Your task to perform on an android device: Do I have any events today? Image 0: 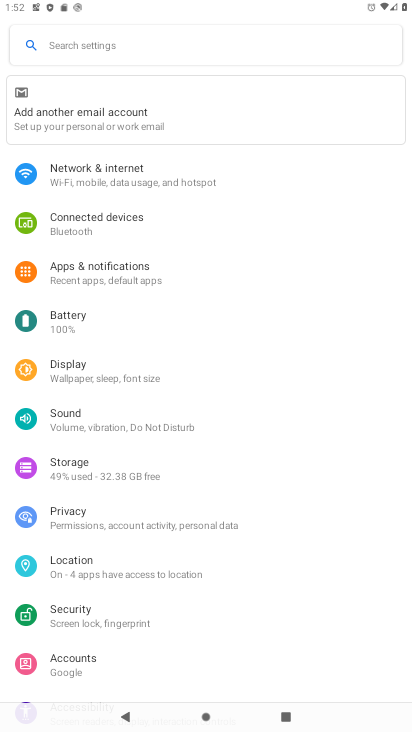
Step 0: press home button
Your task to perform on an android device: Do I have any events today? Image 1: 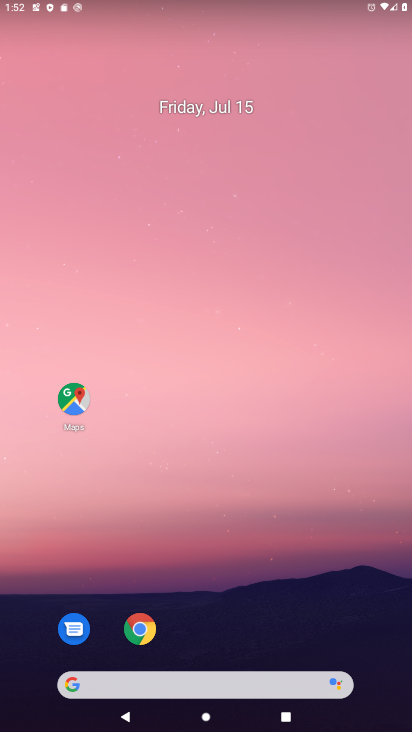
Step 1: drag from (293, 647) to (253, 193)
Your task to perform on an android device: Do I have any events today? Image 2: 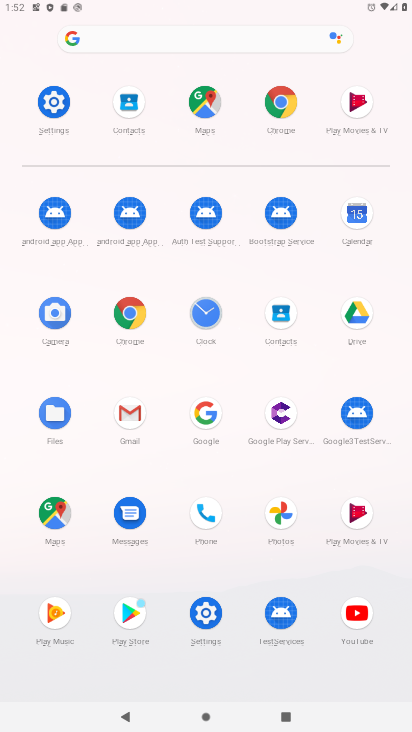
Step 2: click (352, 224)
Your task to perform on an android device: Do I have any events today? Image 3: 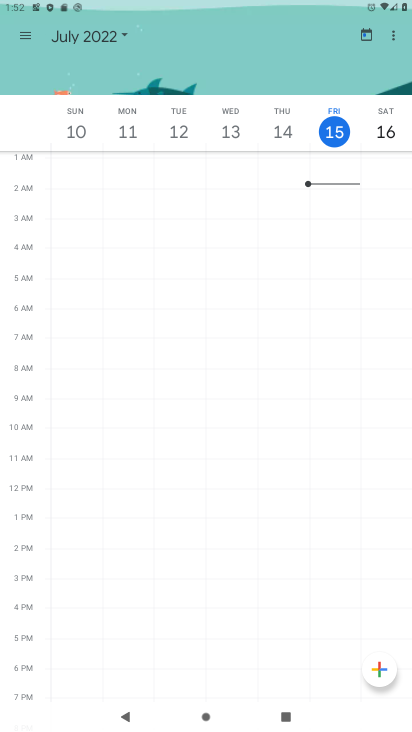
Step 3: task complete